Your task to perform on an android device: What's the weather? Image 0: 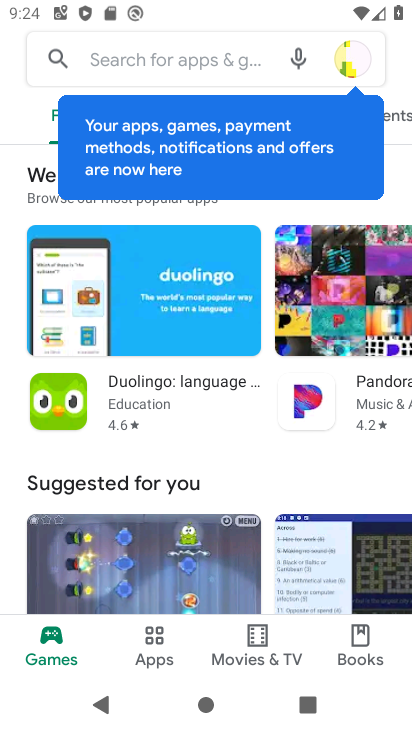
Step 0: press home button
Your task to perform on an android device: What's the weather? Image 1: 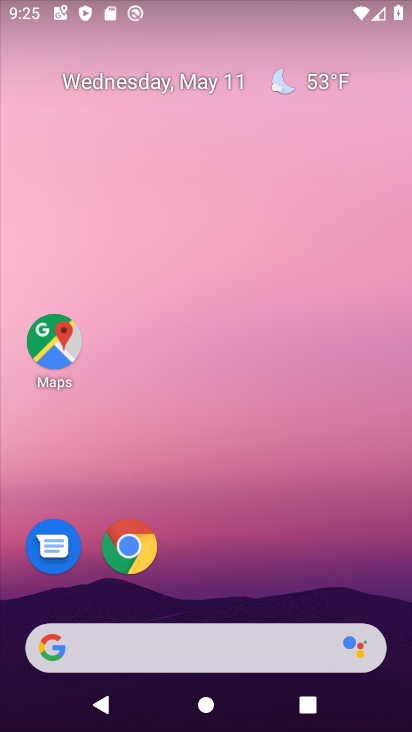
Step 1: click (176, 650)
Your task to perform on an android device: What's the weather? Image 2: 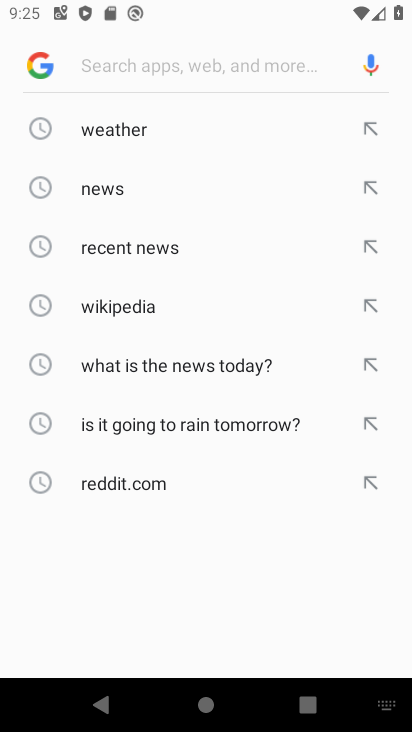
Step 2: click (137, 127)
Your task to perform on an android device: What's the weather? Image 3: 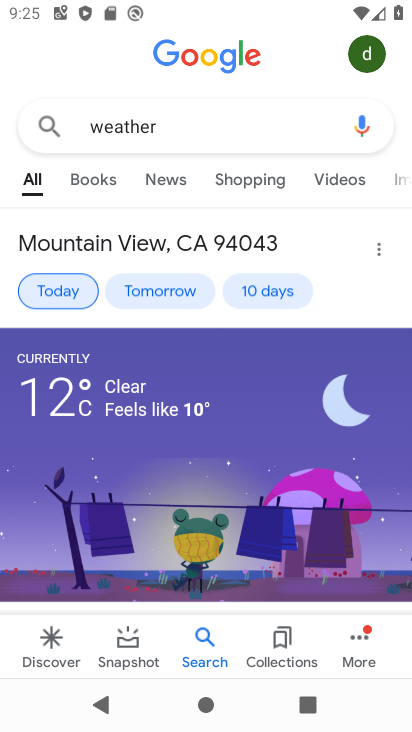
Step 3: task complete